Your task to perform on an android device: Do I have any events this weekend? Image 0: 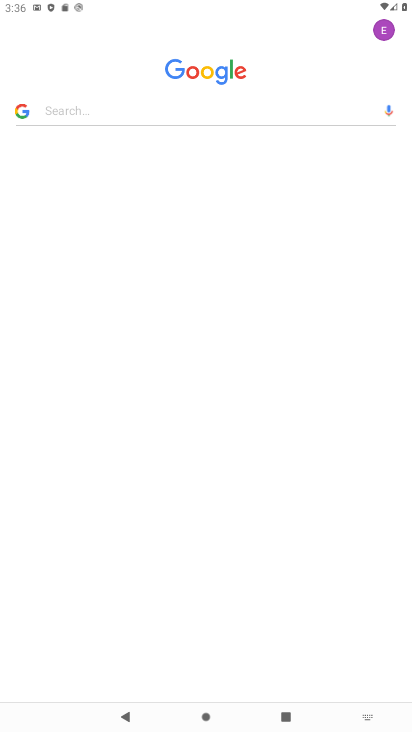
Step 0: press home button
Your task to perform on an android device: Do I have any events this weekend? Image 1: 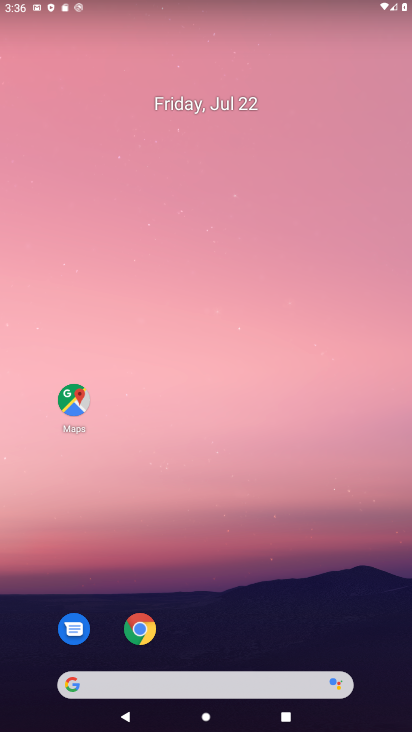
Step 1: drag from (208, 376) to (168, 57)
Your task to perform on an android device: Do I have any events this weekend? Image 2: 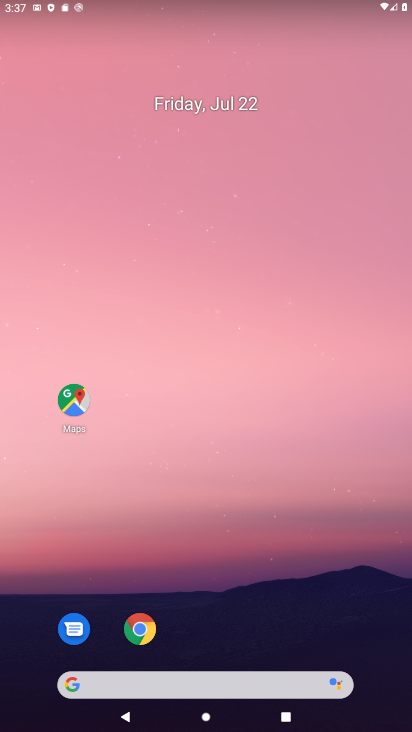
Step 2: drag from (264, 497) to (197, 143)
Your task to perform on an android device: Do I have any events this weekend? Image 3: 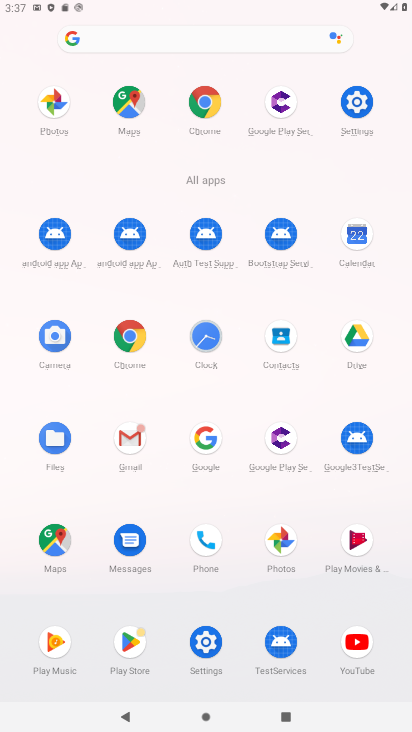
Step 3: click (348, 237)
Your task to perform on an android device: Do I have any events this weekend? Image 4: 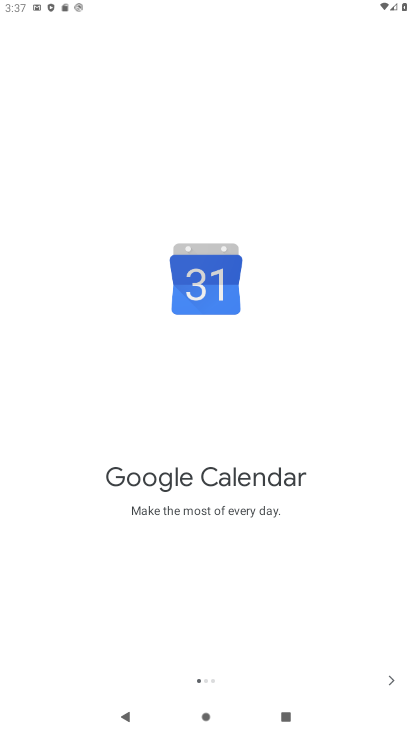
Step 4: click (394, 677)
Your task to perform on an android device: Do I have any events this weekend? Image 5: 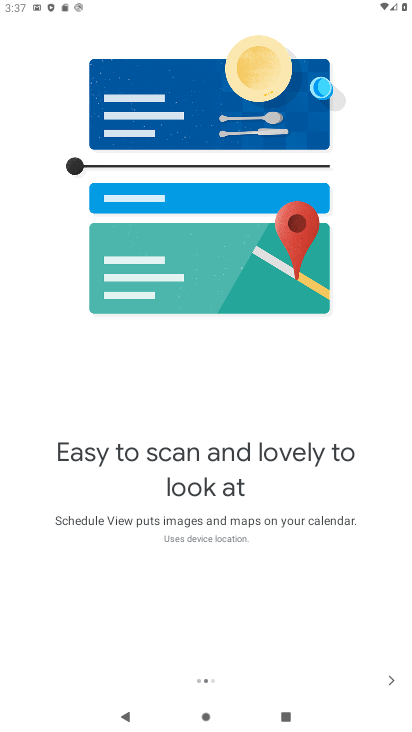
Step 5: click (394, 676)
Your task to perform on an android device: Do I have any events this weekend? Image 6: 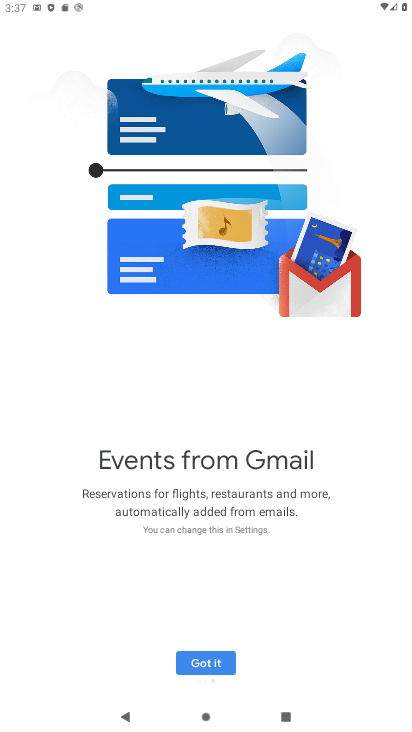
Step 6: click (394, 676)
Your task to perform on an android device: Do I have any events this weekend? Image 7: 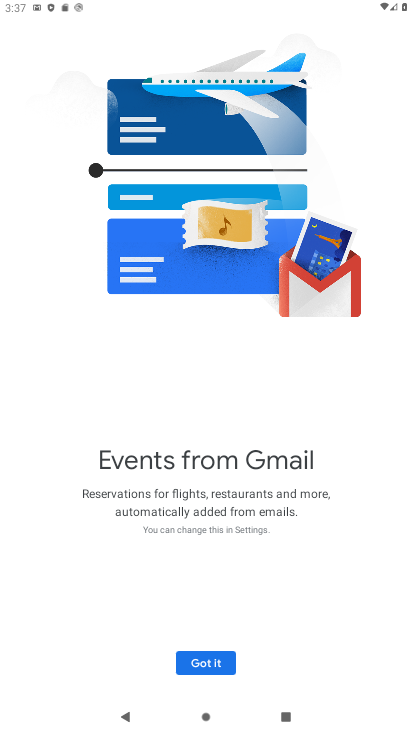
Step 7: click (211, 669)
Your task to perform on an android device: Do I have any events this weekend? Image 8: 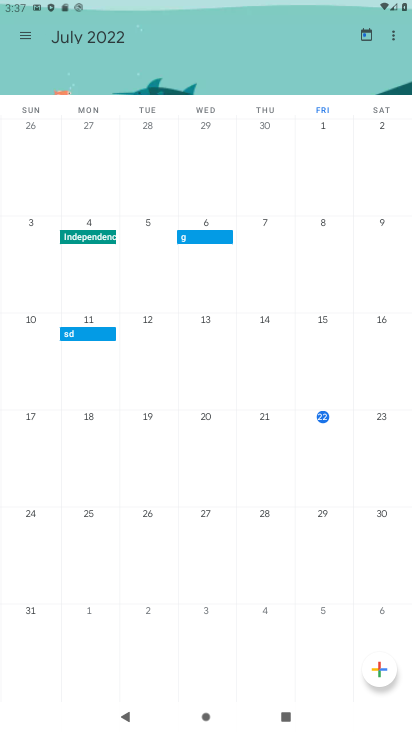
Step 8: click (316, 414)
Your task to perform on an android device: Do I have any events this weekend? Image 9: 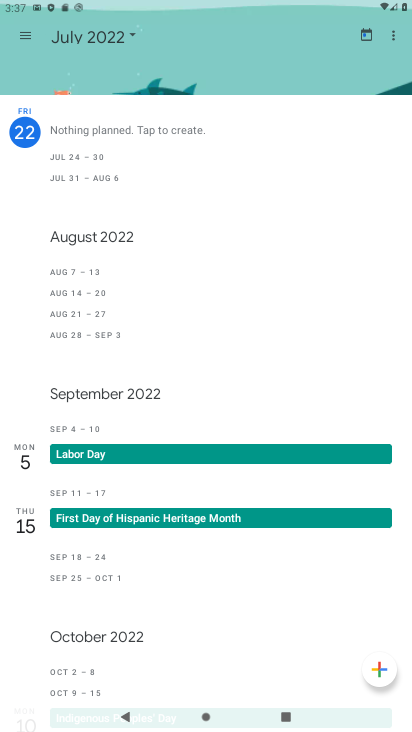
Step 9: click (32, 44)
Your task to perform on an android device: Do I have any events this weekend? Image 10: 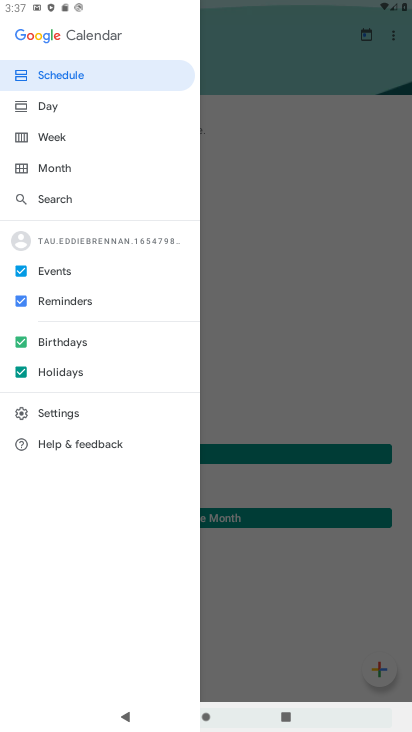
Step 10: click (51, 140)
Your task to perform on an android device: Do I have any events this weekend? Image 11: 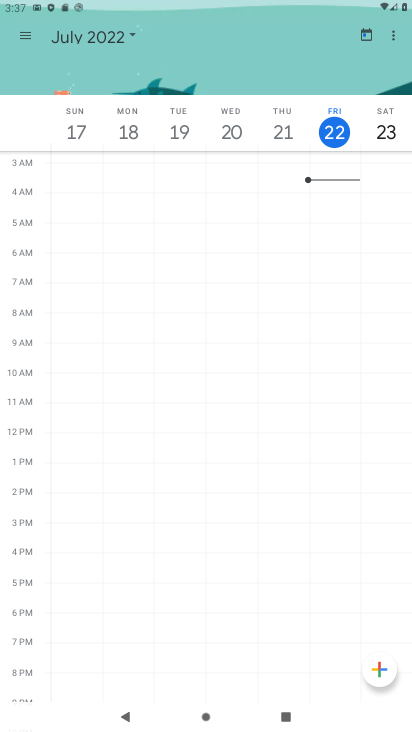
Step 11: click (389, 119)
Your task to perform on an android device: Do I have any events this weekend? Image 12: 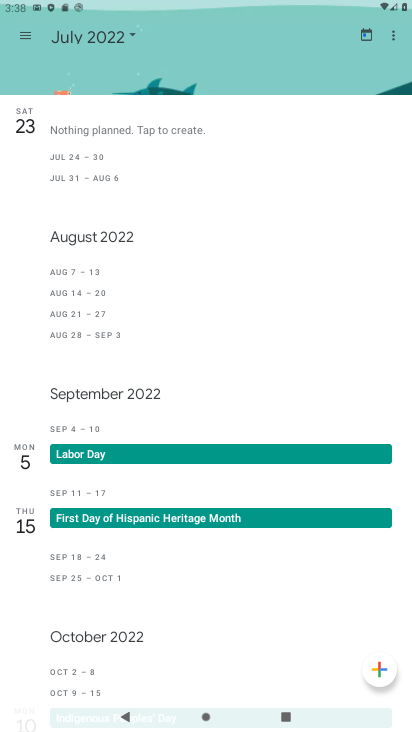
Step 12: task complete